Your task to perform on an android device: empty trash in the gmail app Image 0: 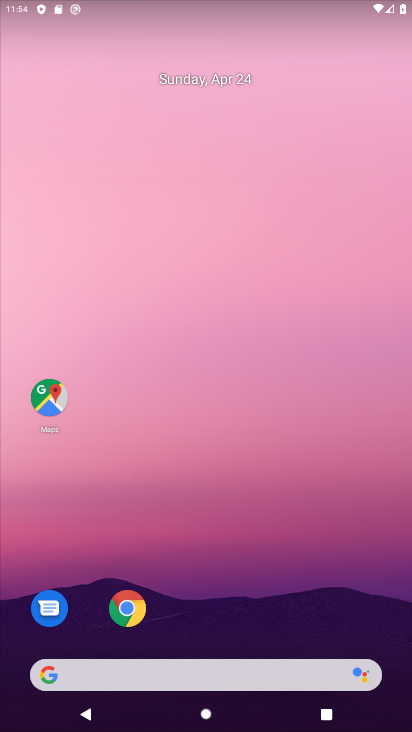
Step 0: drag from (227, 711) to (200, 111)
Your task to perform on an android device: empty trash in the gmail app Image 1: 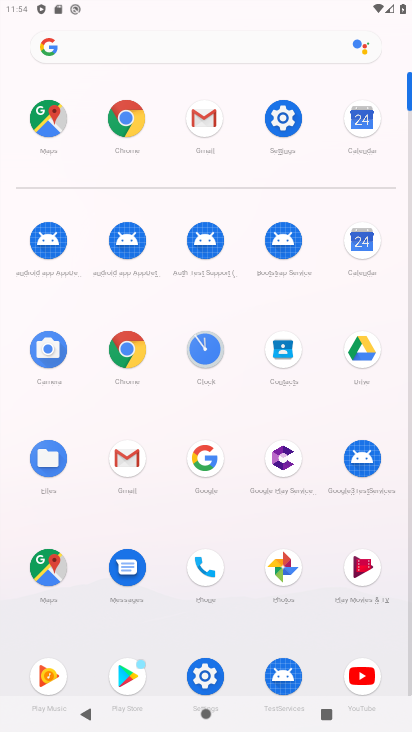
Step 1: click (130, 457)
Your task to perform on an android device: empty trash in the gmail app Image 2: 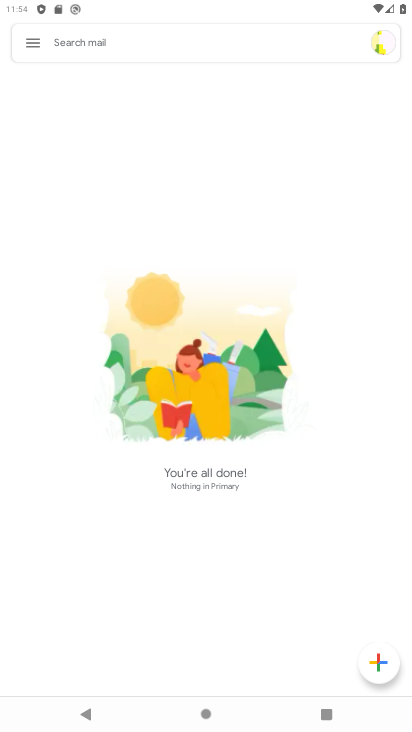
Step 2: click (35, 41)
Your task to perform on an android device: empty trash in the gmail app Image 3: 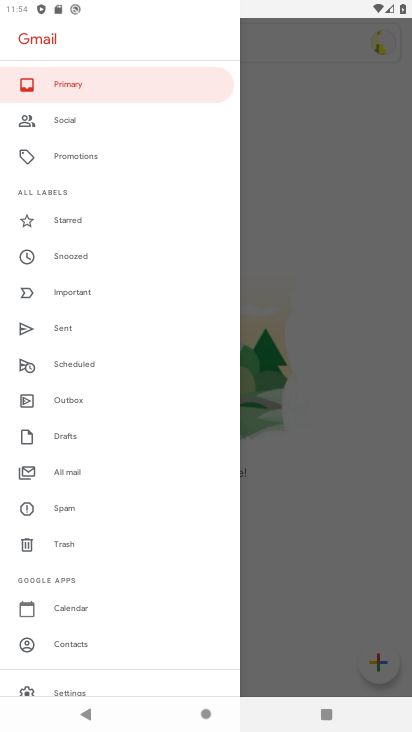
Step 3: click (67, 543)
Your task to perform on an android device: empty trash in the gmail app Image 4: 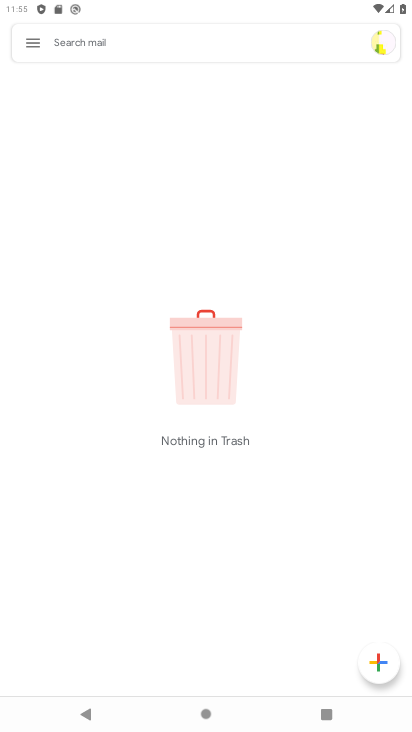
Step 4: task complete